Your task to perform on an android device: change notification settings in the gmail app Image 0: 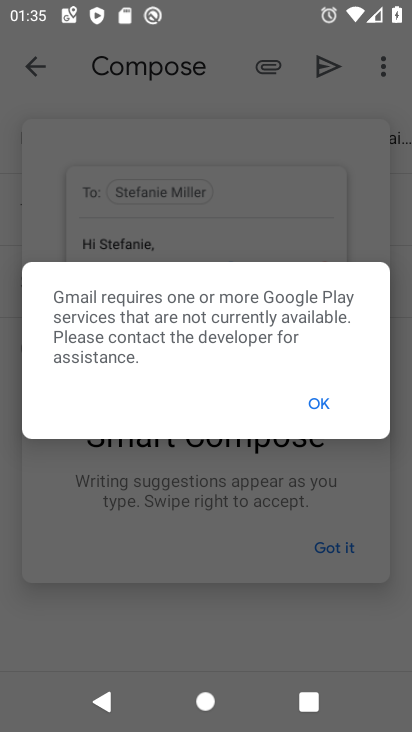
Step 0: press home button
Your task to perform on an android device: change notification settings in the gmail app Image 1: 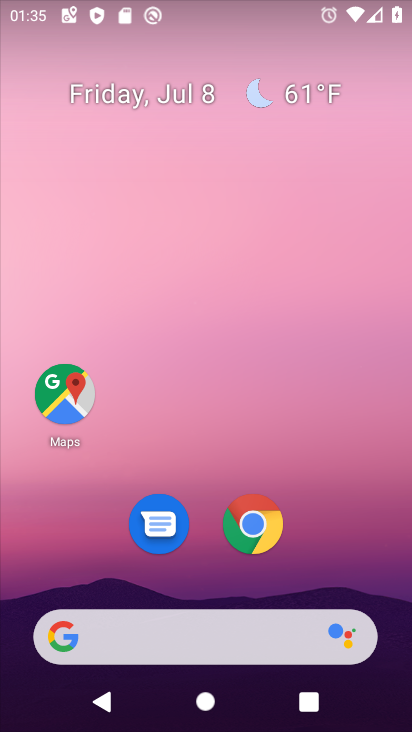
Step 1: drag from (340, 536) to (349, 55)
Your task to perform on an android device: change notification settings in the gmail app Image 2: 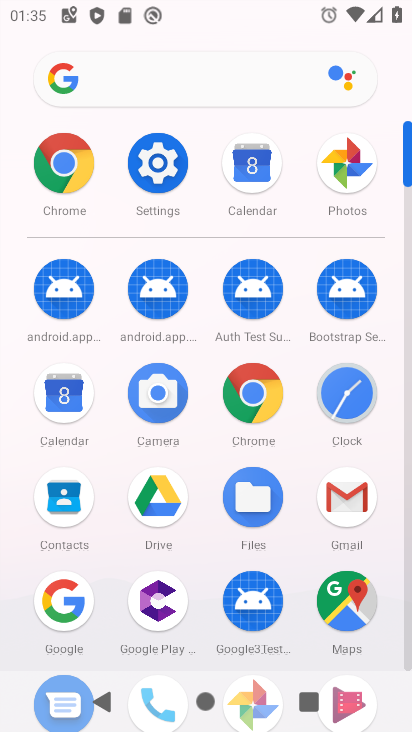
Step 2: click (347, 501)
Your task to perform on an android device: change notification settings in the gmail app Image 3: 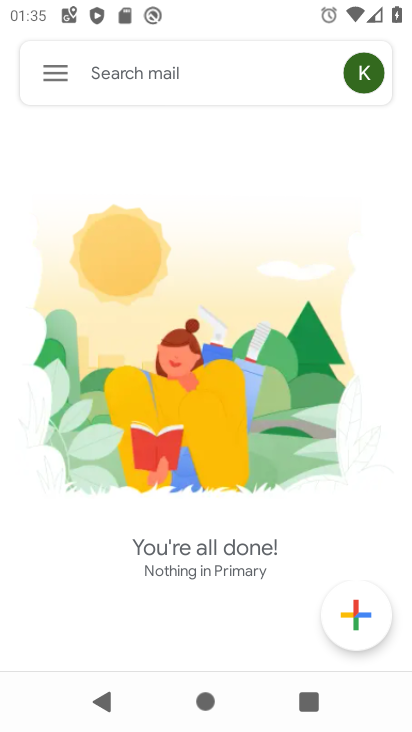
Step 3: click (60, 76)
Your task to perform on an android device: change notification settings in the gmail app Image 4: 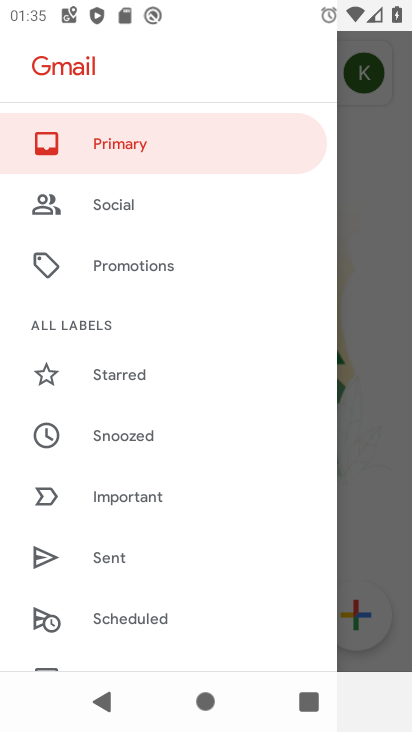
Step 4: drag from (161, 517) to (176, 188)
Your task to perform on an android device: change notification settings in the gmail app Image 5: 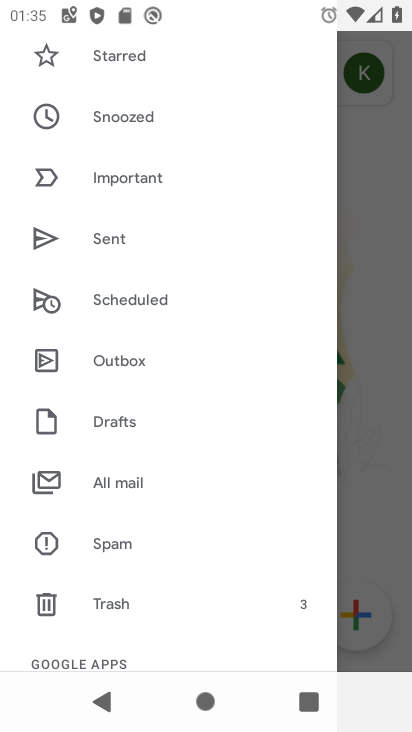
Step 5: drag from (192, 444) to (191, 155)
Your task to perform on an android device: change notification settings in the gmail app Image 6: 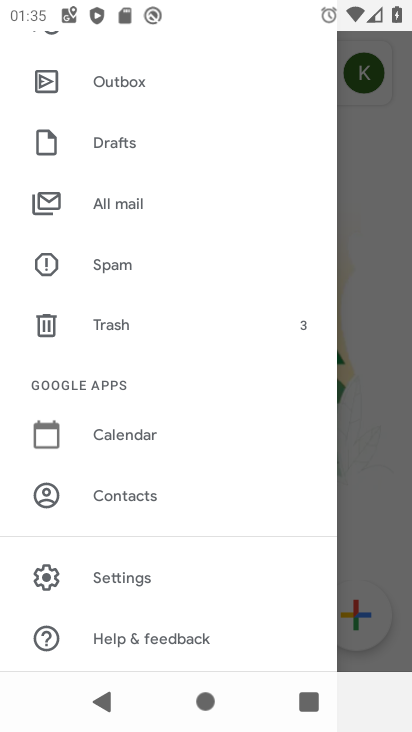
Step 6: click (118, 570)
Your task to perform on an android device: change notification settings in the gmail app Image 7: 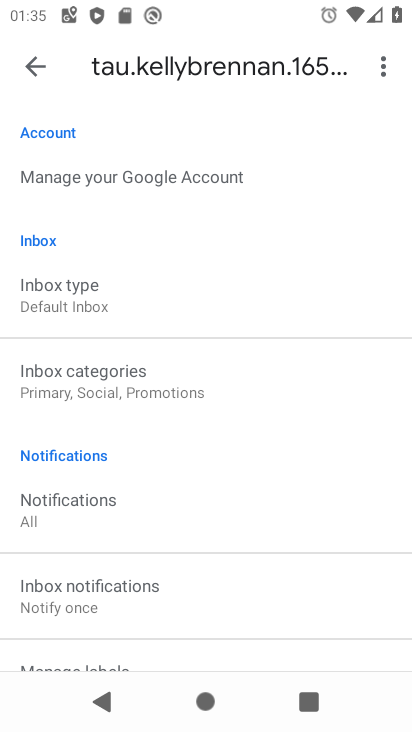
Step 7: drag from (267, 499) to (260, 189)
Your task to perform on an android device: change notification settings in the gmail app Image 8: 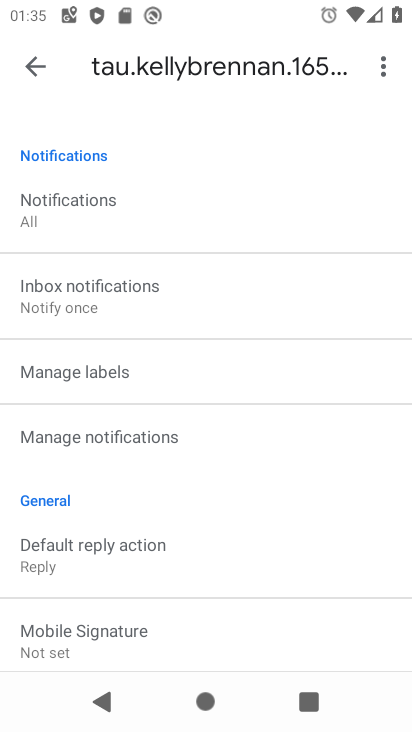
Step 8: click (197, 433)
Your task to perform on an android device: change notification settings in the gmail app Image 9: 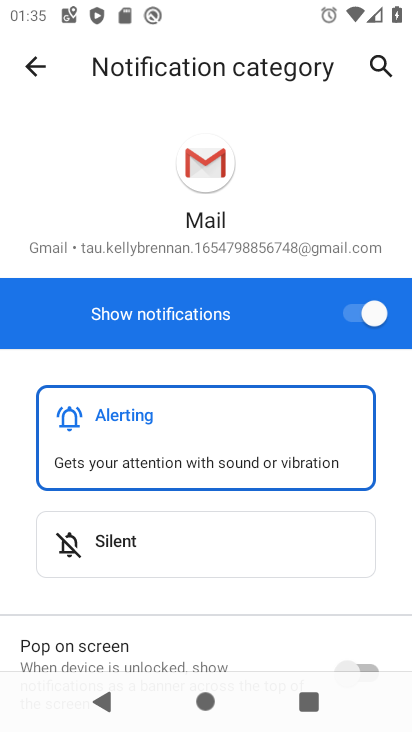
Step 9: click (358, 320)
Your task to perform on an android device: change notification settings in the gmail app Image 10: 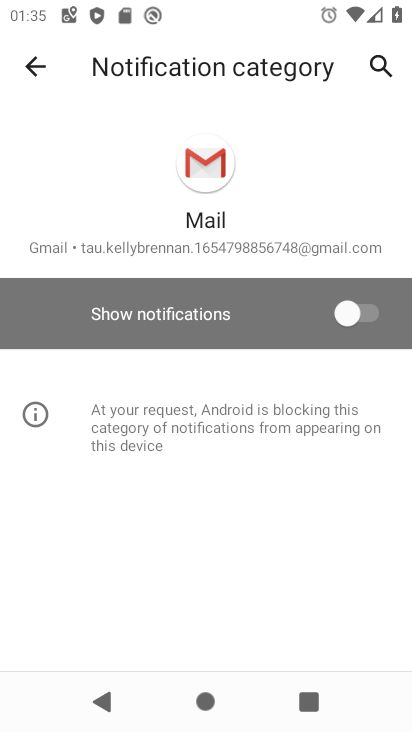
Step 10: task complete